Your task to perform on an android device: turn vacation reply on in the gmail app Image 0: 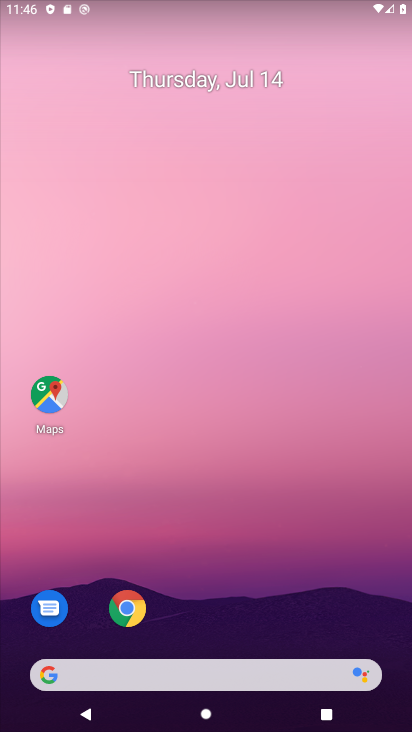
Step 0: drag from (224, 527) to (285, 16)
Your task to perform on an android device: turn vacation reply on in the gmail app Image 1: 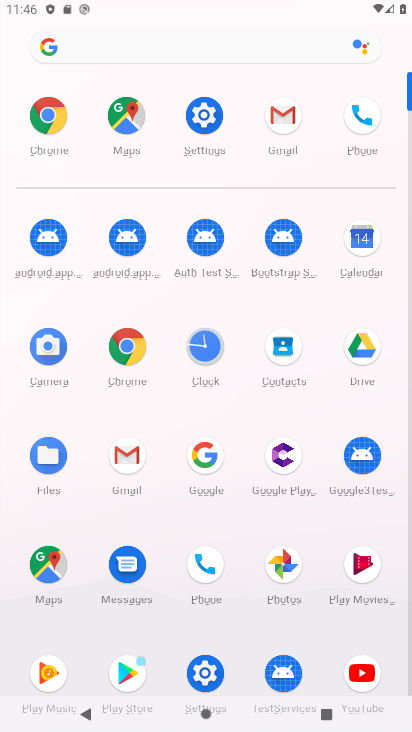
Step 1: click (129, 463)
Your task to perform on an android device: turn vacation reply on in the gmail app Image 2: 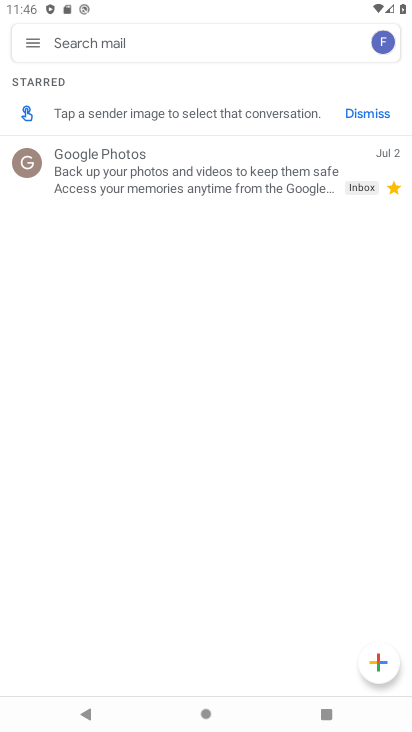
Step 2: click (37, 42)
Your task to perform on an android device: turn vacation reply on in the gmail app Image 3: 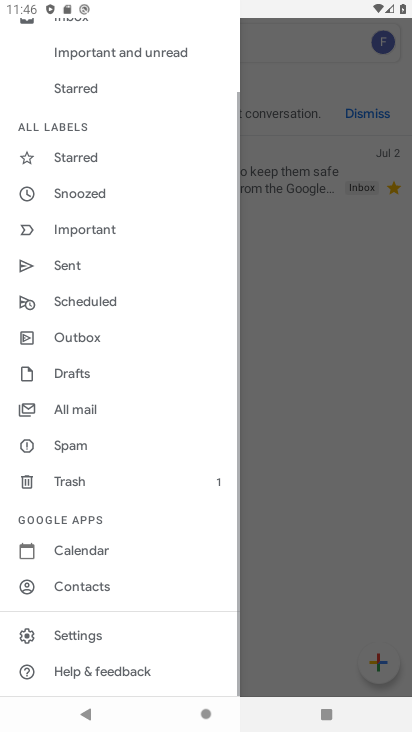
Step 3: drag from (150, 664) to (183, 429)
Your task to perform on an android device: turn vacation reply on in the gmail app Image 4: 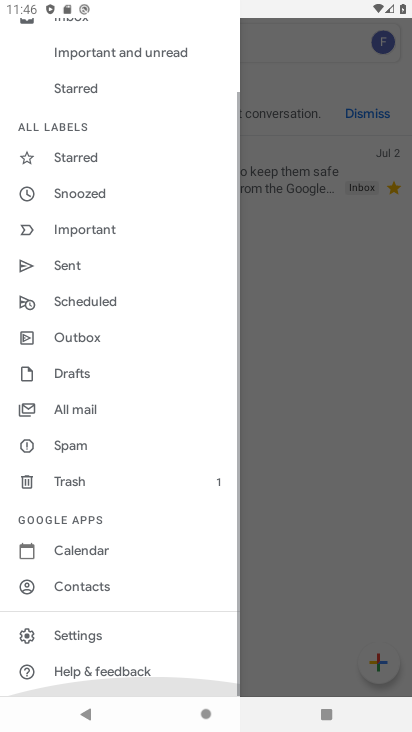
Step 4: click (133, 640)
Your task to perform on an android device: turn vacation reply on in the gmail app Image 5: 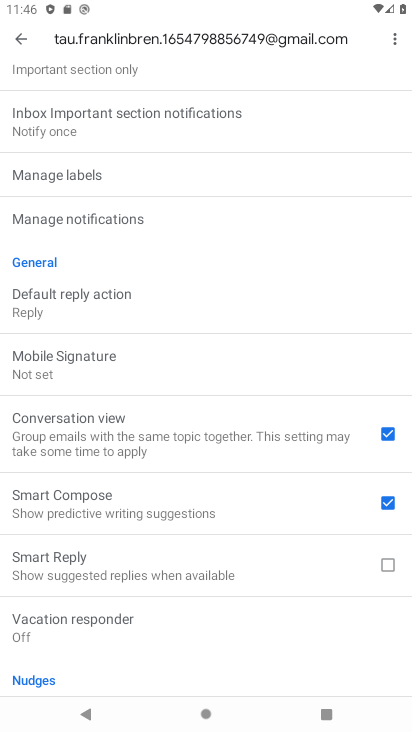
Step 5: click (91, 634)
Your task to perform on an android device: turn vacation reply on in the gmail app Image 6: 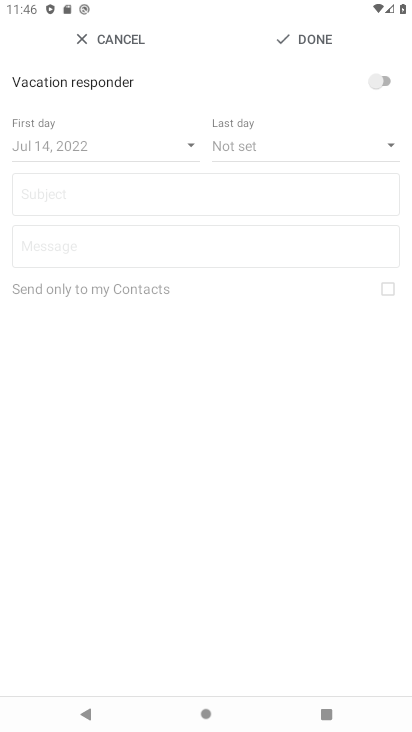
Step 6: click (389, 81)
Your task to perform on an android device: turn vacation reply on in the gmail app Image 7: 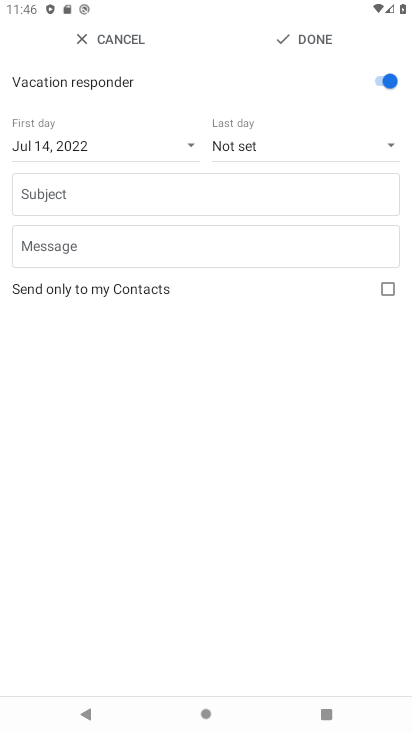
Step 7: task complete